Your task to perform on an android device: Clear the cart on walmart.com. Search for "acer predator" on walmart.com, select the first entry, add it to the cart, then select checkout. Image 0: 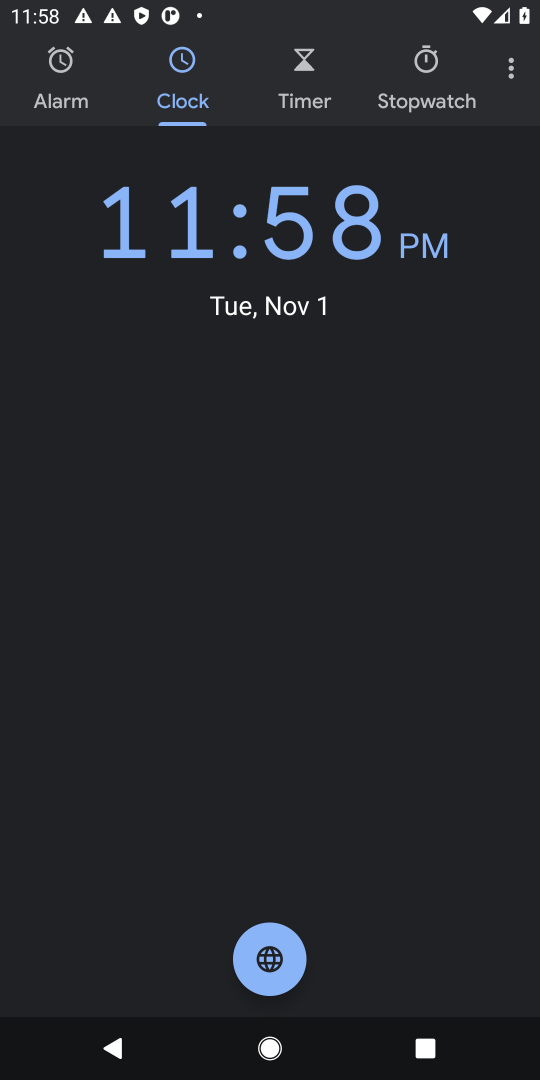
Step 0: press home button
Your task to perform on an android device: Clear the cart on walmart.com. Search for "acer predator" on walmart.com, select the first entry, add it to the cart, then select checkout. Image 1: 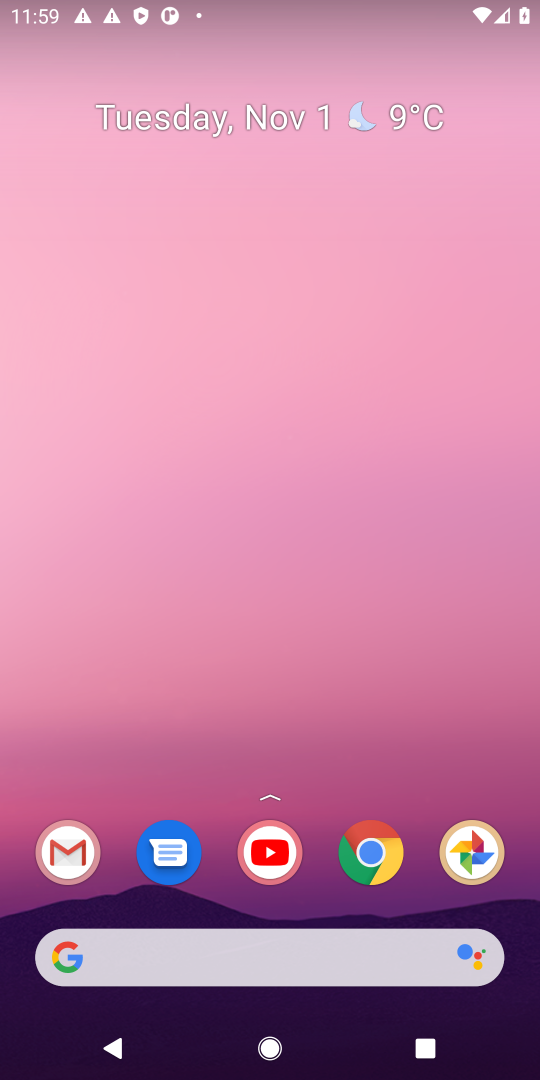
Step 1: click (374, 840)
Your task to perform on an android device: Clear the cart on walmart.com. Search for "acer predator" on walmart.com, select the first entry, add it to the cart, then select checkout. Image 2: 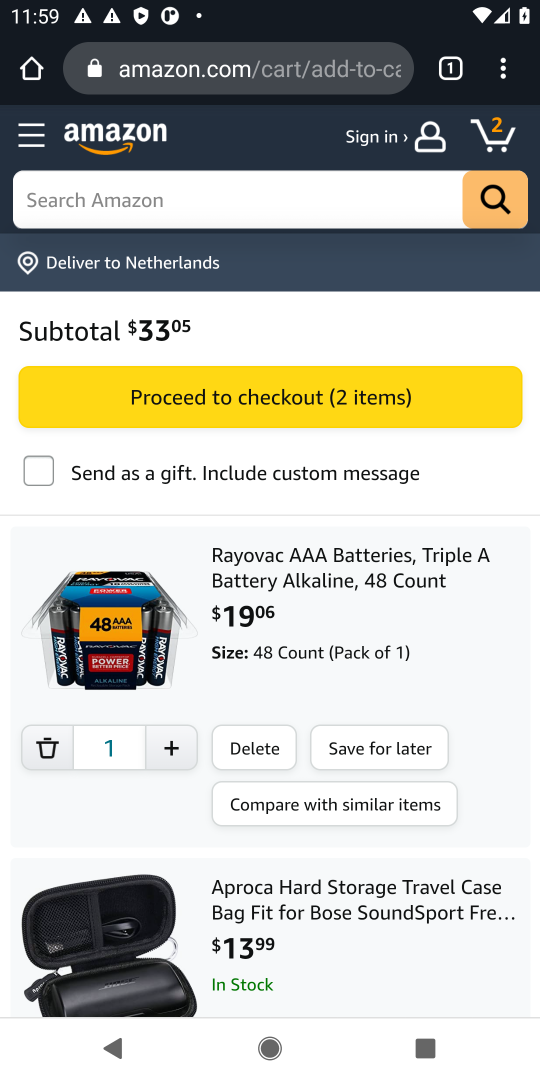
Step 2: click (253, 68)
Your task to perform on an android device: Clear the cart on walmart.com. Search for "acer predator" on walmart.com, select the first entry, add it to the cart, then select checkout. Image 3: 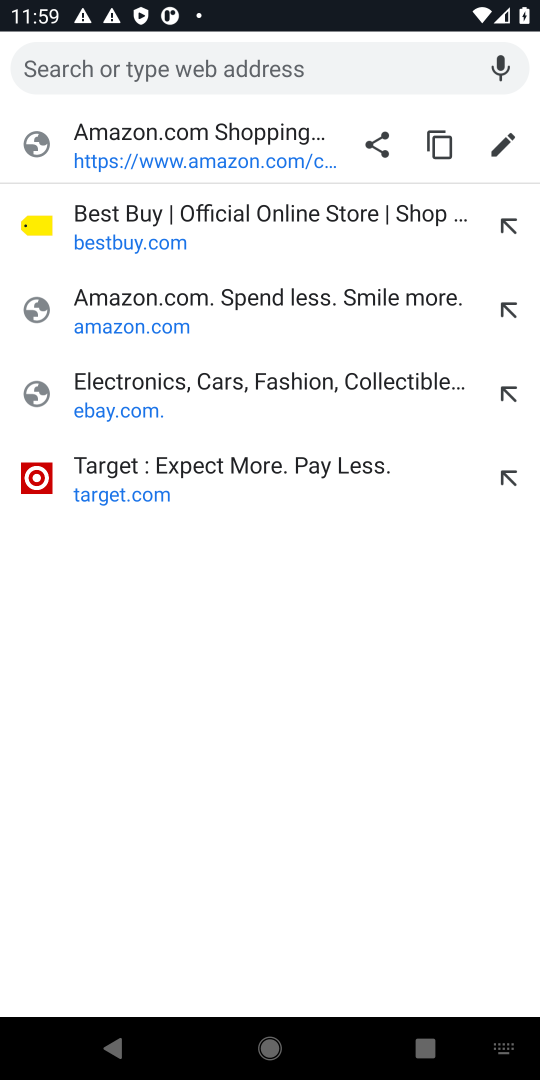
Step 3: type "walmart.com"
Your task to perform on an android device: Clear the cart on walmart.com. Search for "acer predator" on walmart.com, select the first entry, add it to the cart, then select checkout. Image 4: 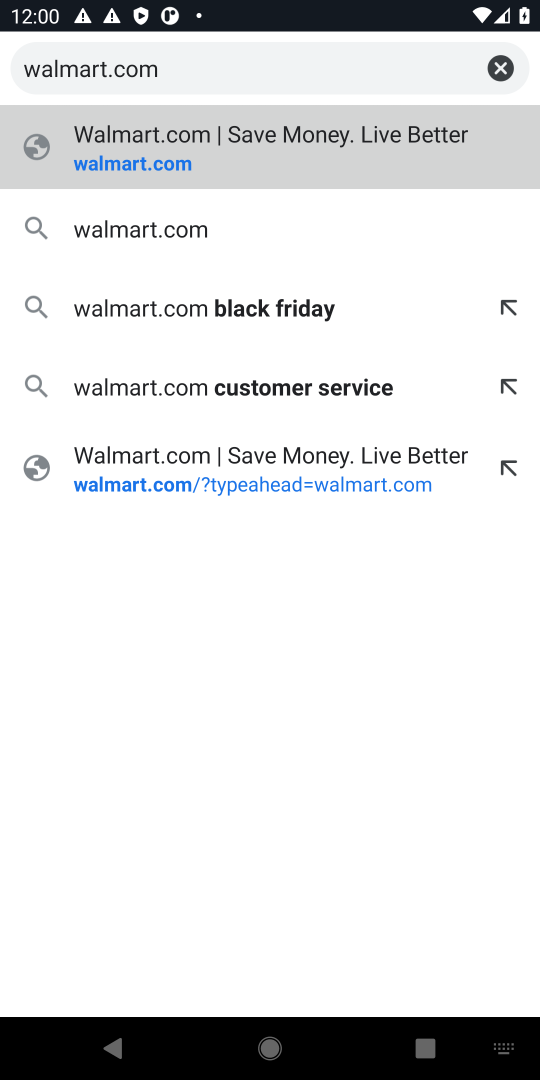
Step 4: click (336, 160)
Your task to perform on an android device: Clear the cart on walmart.com. Search for "acer predator" on walmart.com, select the first entry, add it to the cart, then select checkout. Image 5: 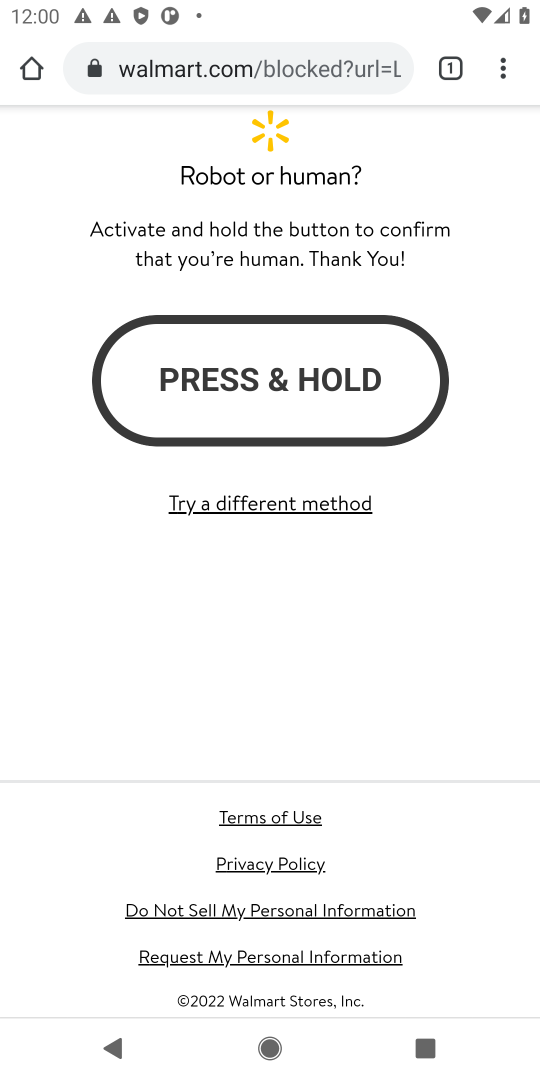
Step 5: click (346, 371)
Your task to perform on an android device: Clear the cart on walmart.com. Search for "acer predator" on walmart.com, select the first entry, add it to the cart, then select checkout. Image 6: 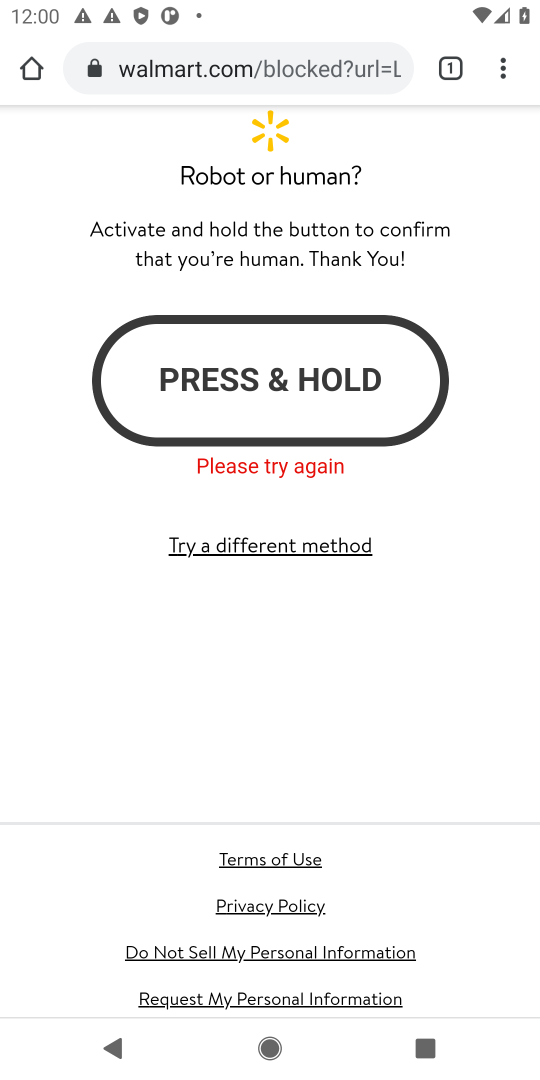
Step 6: task complete